Your task to perform on an android device: toggle location history Image 0: 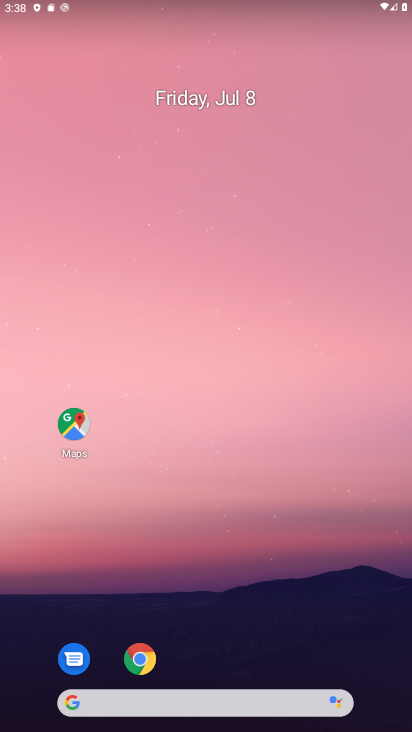
Step 0: drag from (285, 554) to (235, 133)
Your task to perform on an android device: toggle location history Image 1: 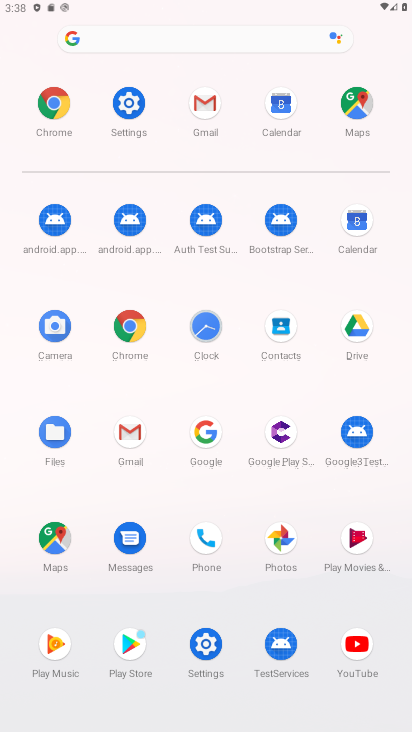
Step 1: click (211, 659)
Your task to perform on an android device: toggle location history Image 2: 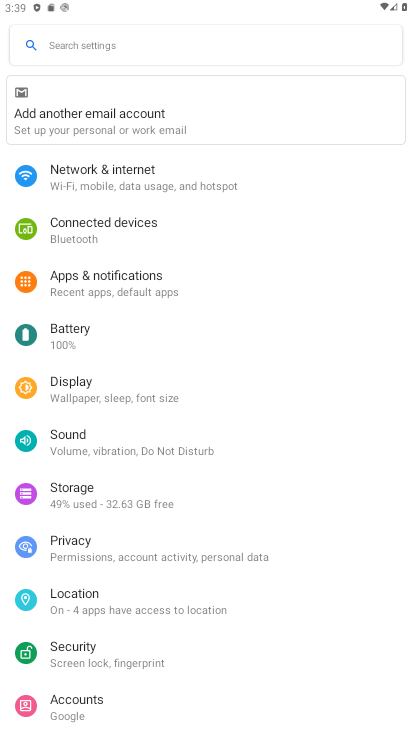
Step 2: click (98, 610)
Your task to perform on an android device: toggle location history Image 3: 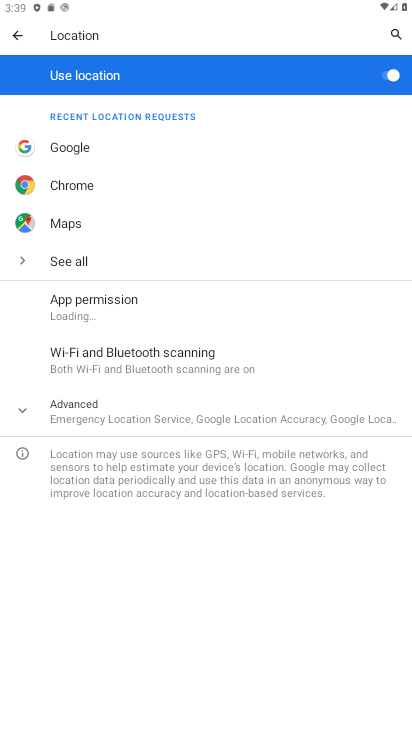
Step 3: click (137, 409)
Your task to perform on an android device: toggle location history Image 4: 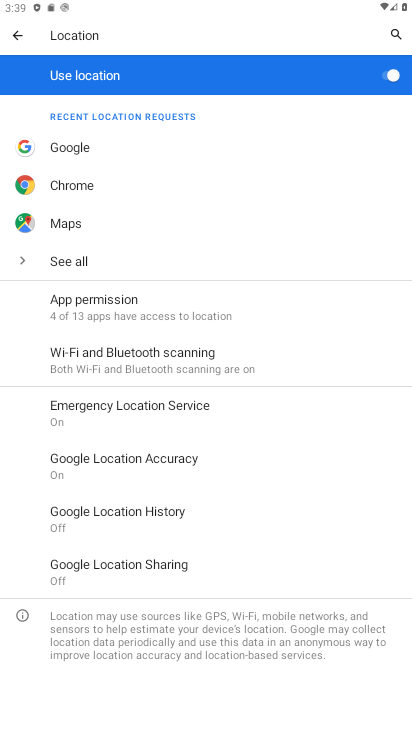
Step 4: click (140, 509)
Your task to perform on an android device: toggle location history Image 5: 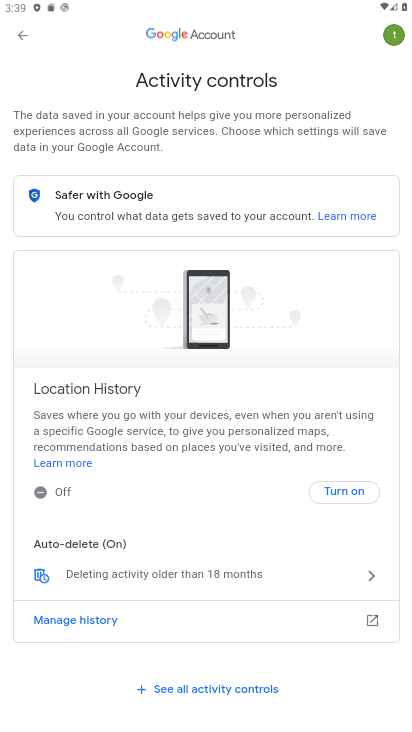
Step 5: click (348, 487)
Your task to perform on an android device: toggle location history Image 6: 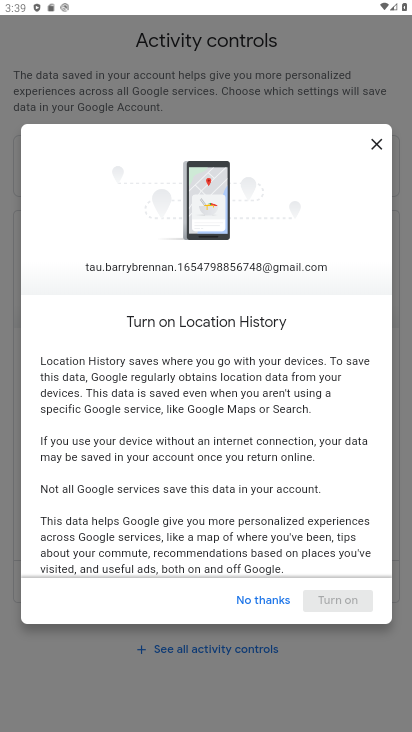
Step 6: drag from (249, 515) to (246, 13)
Your task to perform on an android device: toggle location history Image 7: 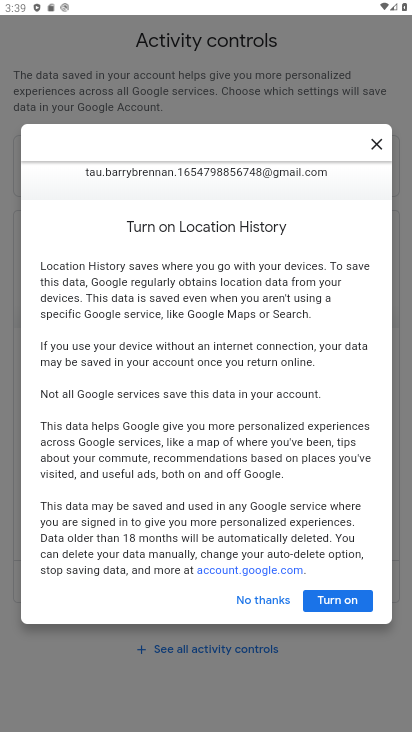
Step 7: click (345, 600)
Your task to perform on an android device: toggle location history Image 8: 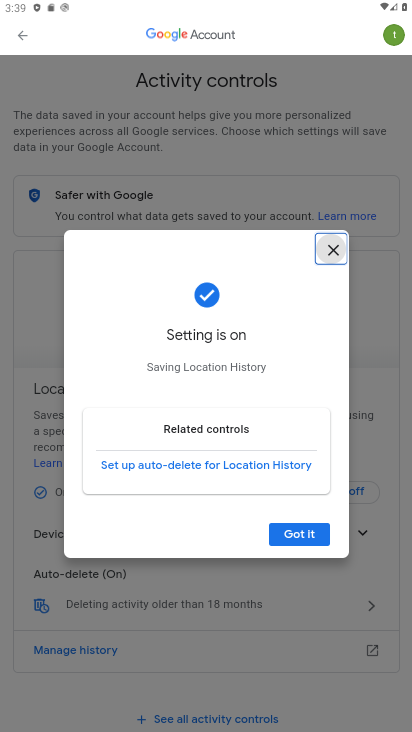
Step 8: press home button
Your task to perform on an android device: toggle location history Image 9: 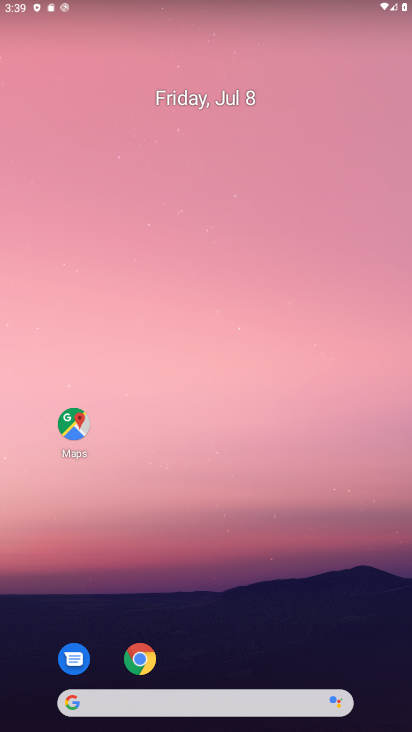
Step 9: drag from (13, 571) to (302, 131)
Your task to perform on an android device: toggle location history Image 10: 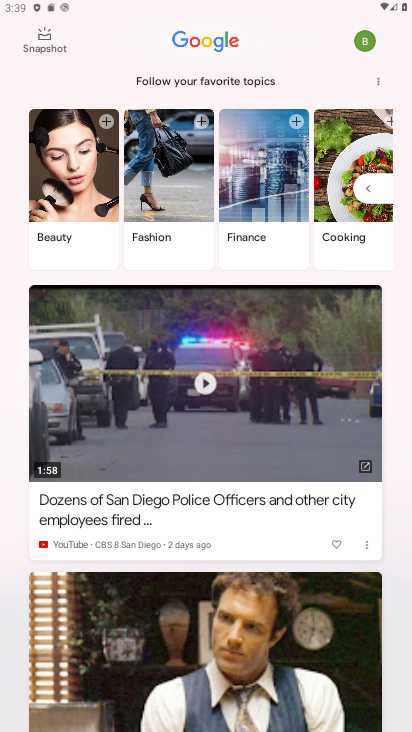
Step 10: press home button
Your task to perform on an android device: toggle location history Image 11: 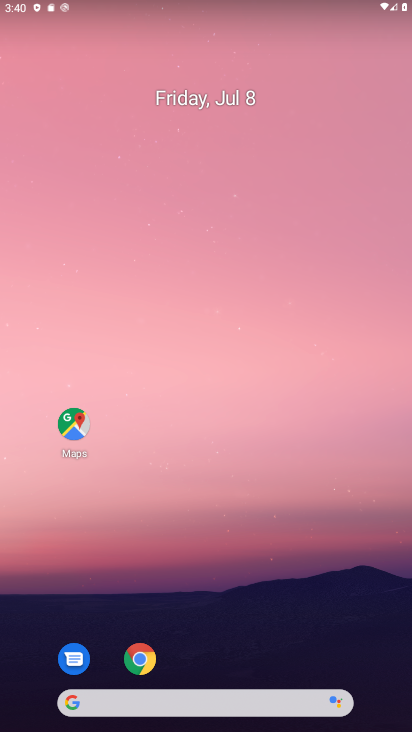
Step 11: drag from (94, 548) to (407, 145)
Your task to perform on an android device: toggle location history Image 12: 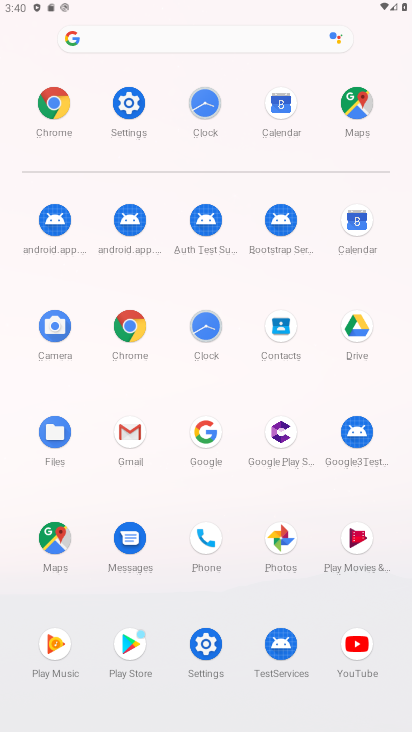
Step 12: click (111, 108)
Your task to perform on an android device: toggle location history Image 13: 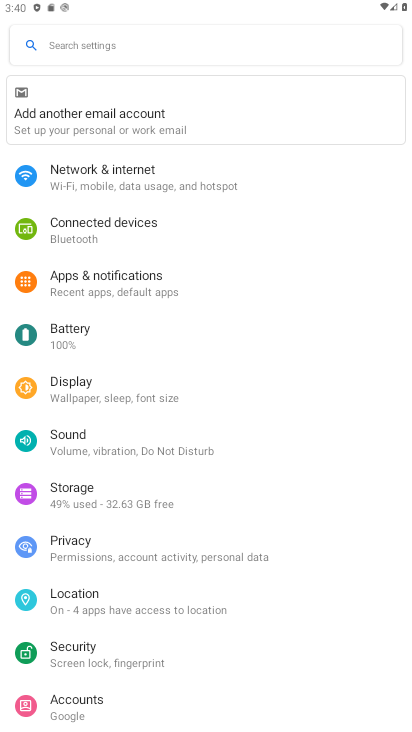
Step 13: click (130, 612)
Your task to perform on an android device: toggle location history Image 14: 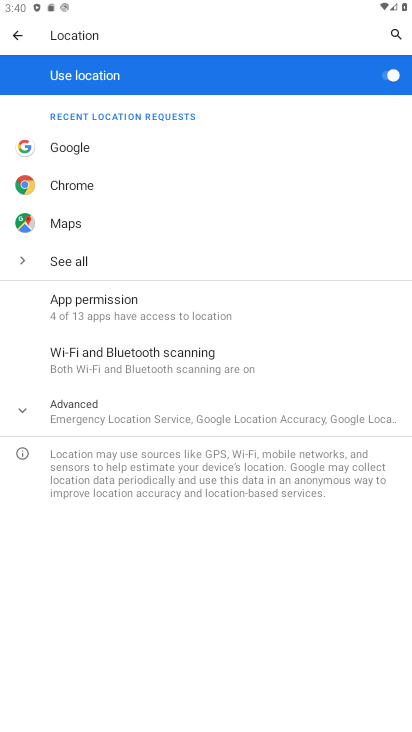
Step 14: click (175, 412)
Your task to perform on an android device: toggle location history Image 15: 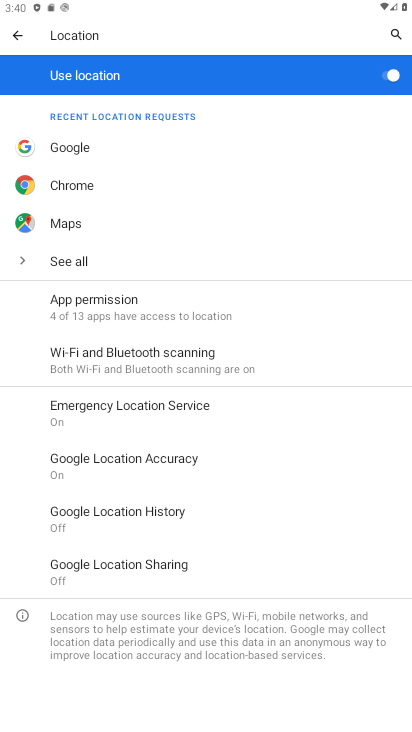
Step 15: click (185, 511)
Your task to perform on an android device: toggle location history Image 16: 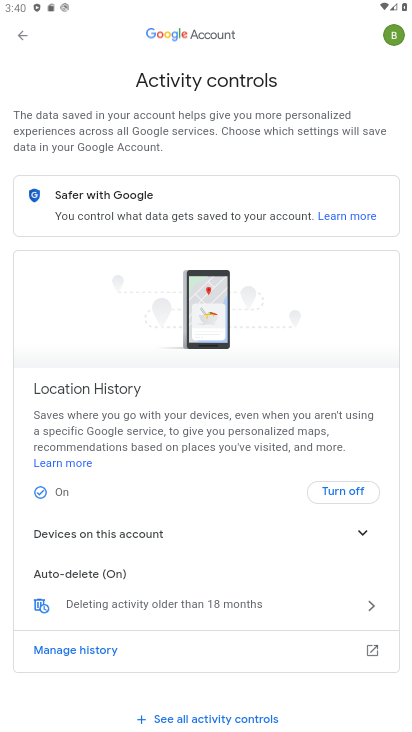
Step 16: click (362, 480)
Your task to perform on an android device: toggle location history Image 17: 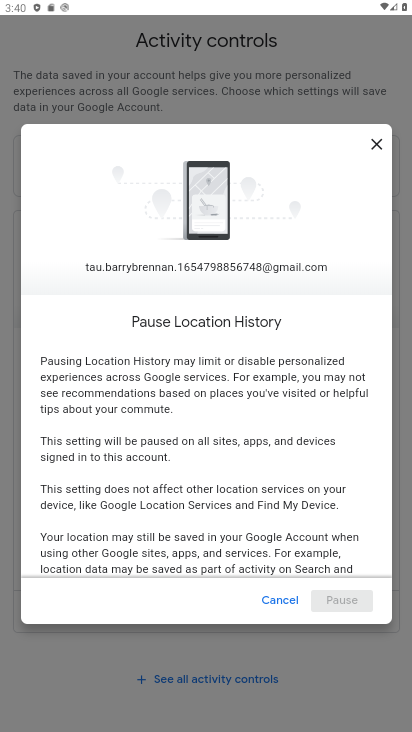
Step 17: drag from (287, 541) to (379, 242)
Your task to perform on an android device: toggle location history Image 18: 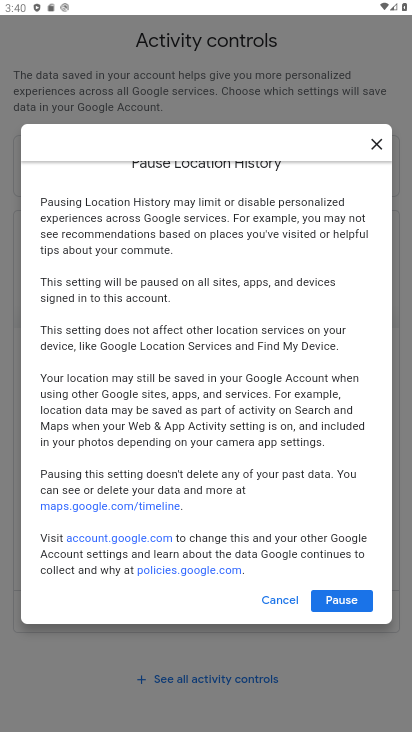
Step 18: drag from (213, 500) to (310, 318)
Your task to perform on an android device: toggle location history Image 19: 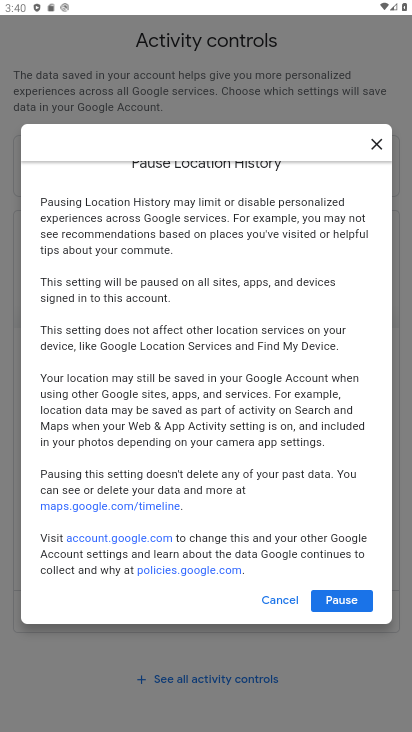
Step 19: click (335, 600)
Your task to perform on an android device: toggle location history Image 20: 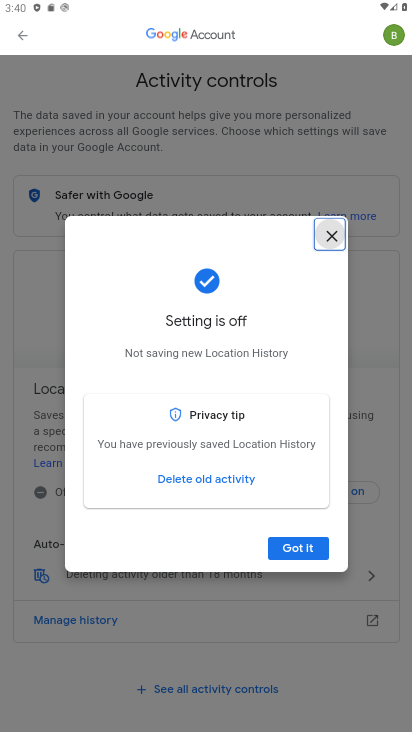
Step 20: click (295, 548)
Your task to perform on an android device: toggle location history Image 21: 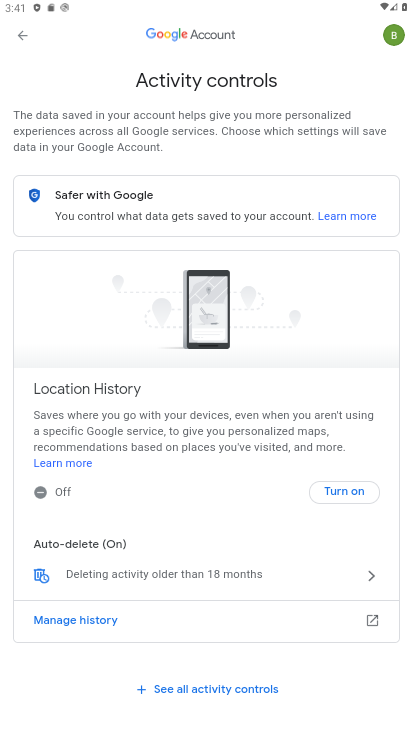
Step 21: task complete